Your task to perform on an android device: open chrome and create a bookmark for the current page Image 0: 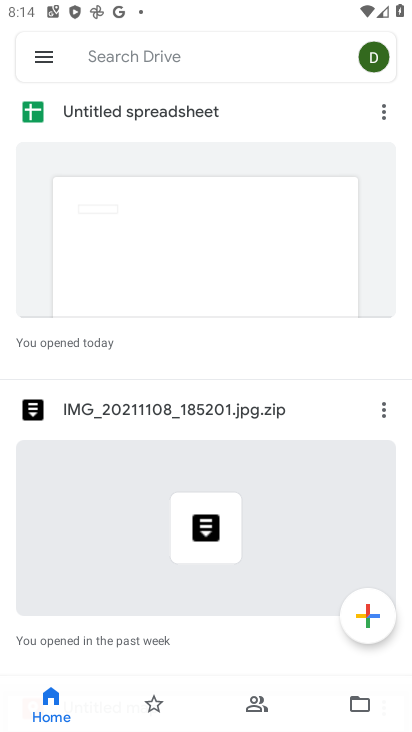
Step 0: press home button
Your task to perform on an android device: open chrome and create a bookmark for the current page Image 1: 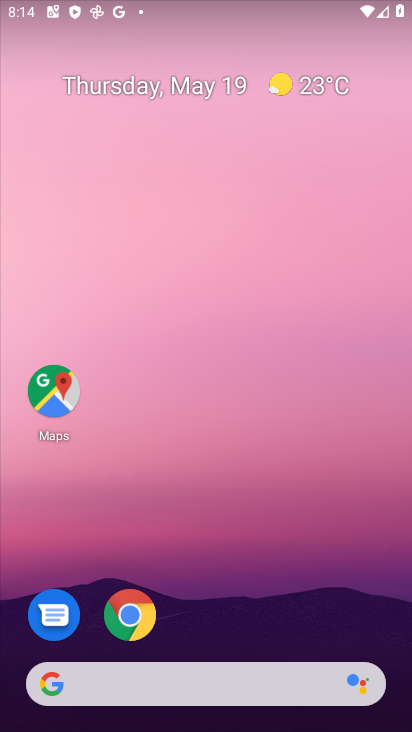
Step 1: drag from (323, 626) to (178, 137)
Your task to perform on an android device: open chrome and create a bookmark for the current page Image 2: 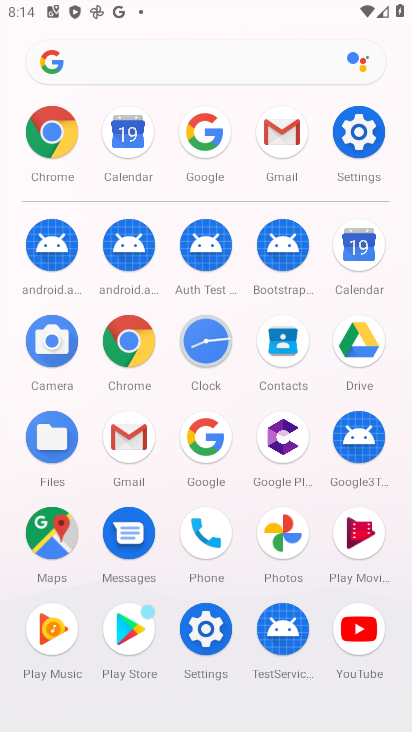
Step 2: click (42, 151)
Your task to perform on an android device: open chrome and create a bookmark for the current page Image 3: 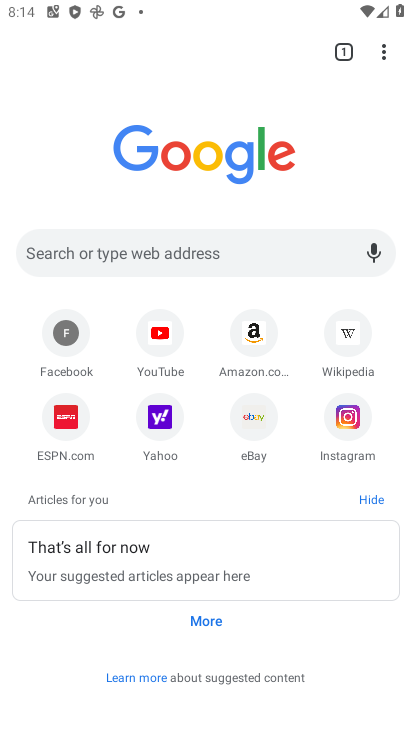
Step 3: click (387, 44)
Your task to perform on an android device: open chrome and create a bookmark for the current page Image 4: 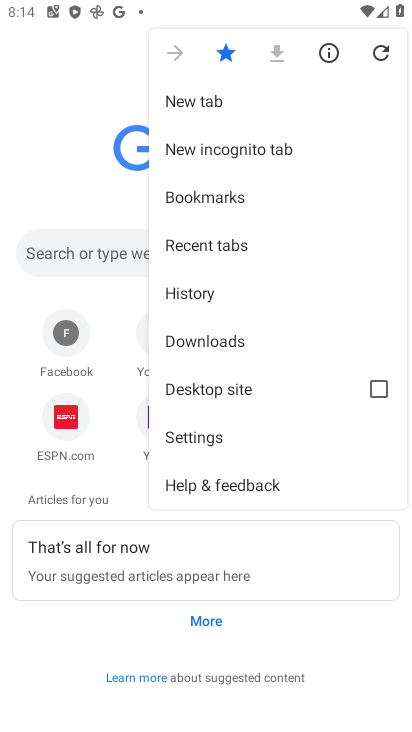
Step 4: task complete